Your task to perform on an android device: find which apps use the phone's location Image 0: 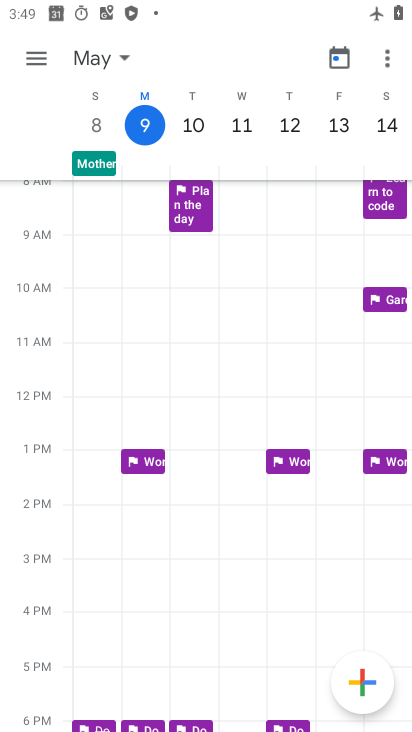
Step 0: press home button
Your task to perform on an android device: find which apps use the phone's location Image 1: 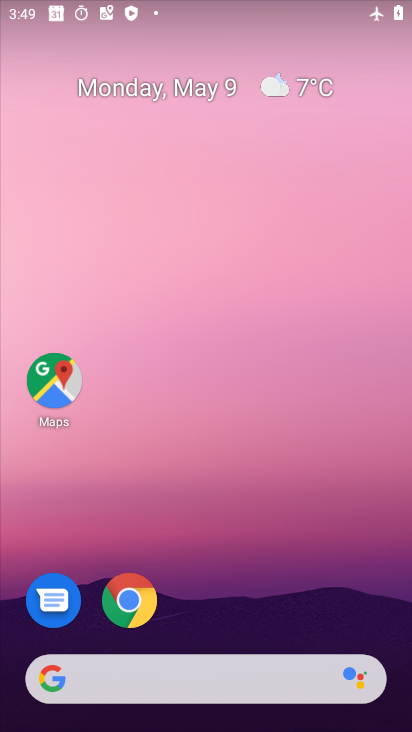
Step 1: drag from (181, 550) to (195, 110)
Your task to perform on an android device: find which apps use the phone's location Image 2: 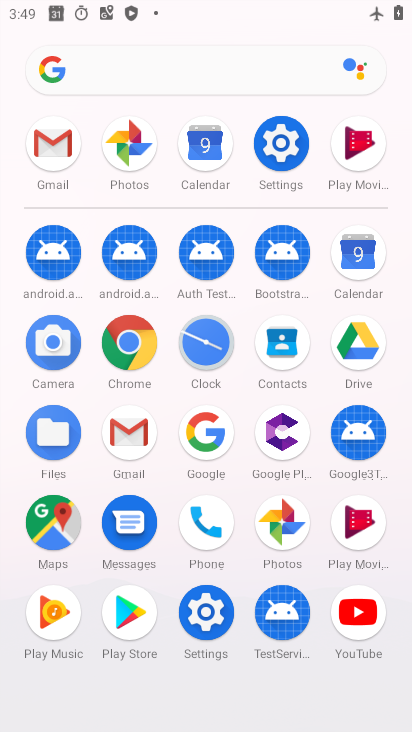
Step 2: click (202, 622)
Your task to perform on an android device: find which apps use the phone's location Image 3: 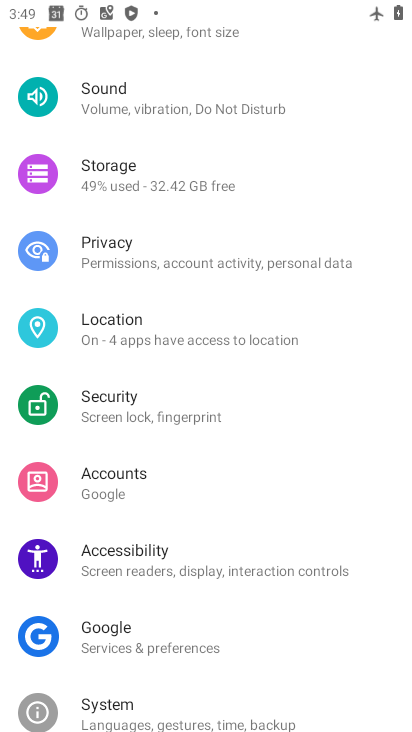
Step 3: click (174, 333)
Your task to perform on an android device: find which apps use the phone's location Image 4: 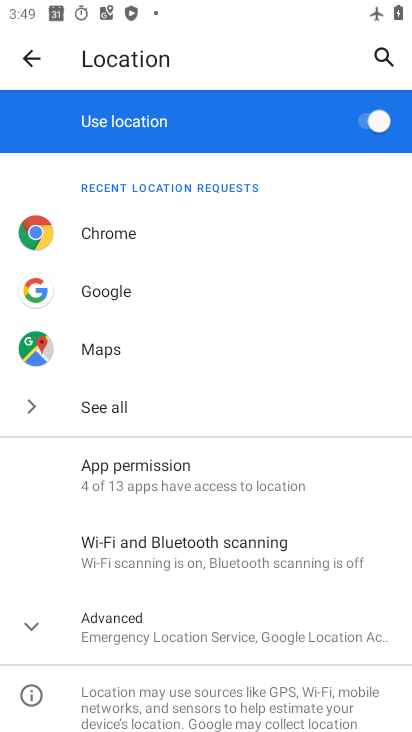
Step 4: click (170, 475)
Your task to perform on an android device: find which apps use the phone's location Image 5: 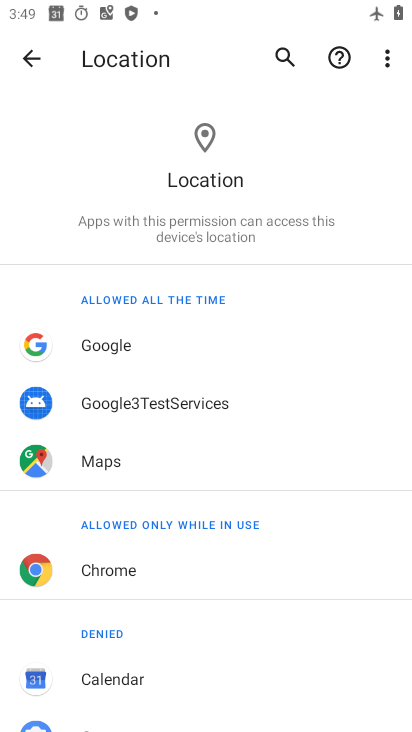
Step 5: task complete